Your task to perform on an android device: choose inbox layout in the gmail app Image 0: 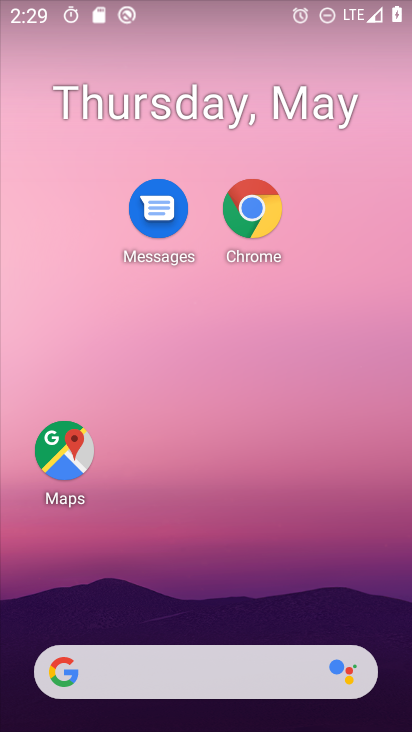
Step 0: drag from (187, 589) to (186, 57)
Your task to perform on an android device: choose inbox layout in the gmail app Image 1: 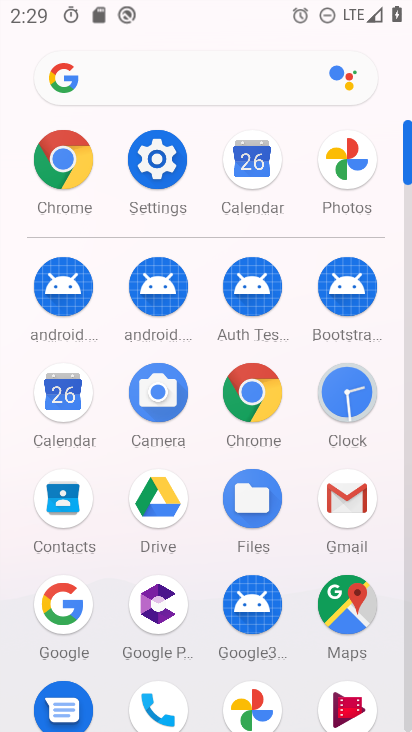
Step 1: click (350, 523)
Your task to perform on an android device: choose inbox layout in the gmail app Image 2: 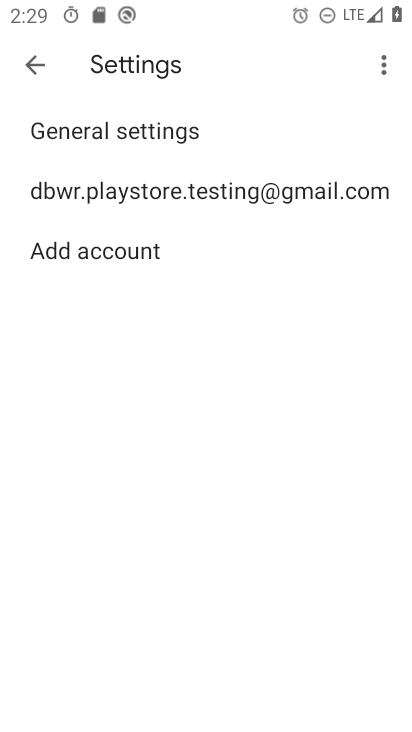
Step 2: click (32, 62)
Your task to perform on an android device: choose inbox layout in the gmail app Image 3: 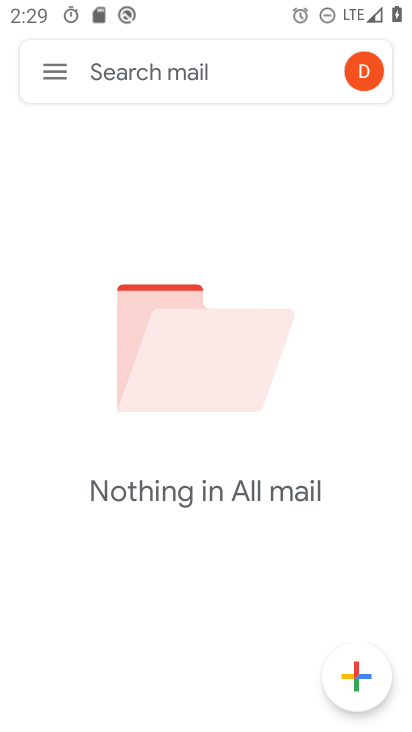
Step 3: click (63, 79)
Your task to perform on an android device: choose inbox layout in the gmail app Image 4: 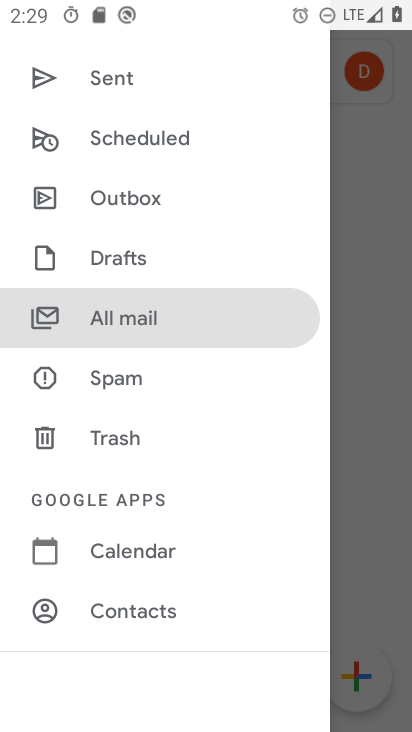
Step 4: drag from (115, 572) to (136, 169)
Your task to perform on an android device: choose inbox layout in the gmail app Image 5: 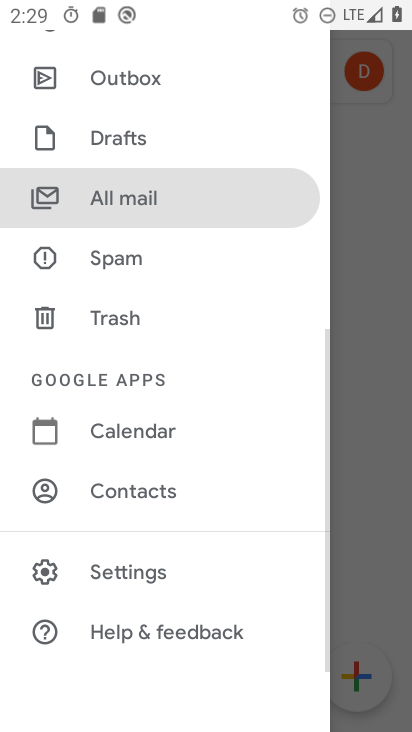
Step 5: click (92, 567)
Your task to perform on an android device: choose inbox layout in the gmail app Image 6: 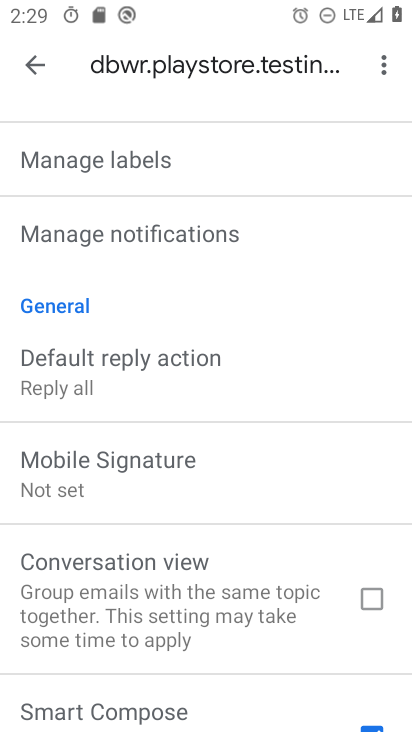
Step 6: drag from (141, 492) to (119, 616)
Your task to perform on an android device: choose inbox layout in the gmail app Image 7: 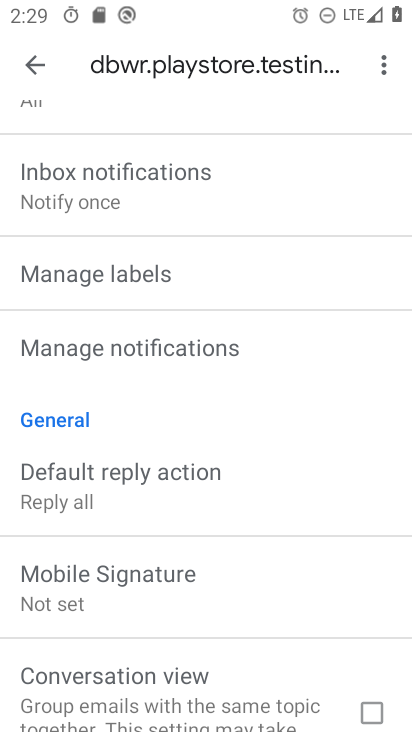
Step 7: drag from (131, 279) to (89, 588)
Your task to perform on an android device: choose inbox layout in the gmail app Image 8: 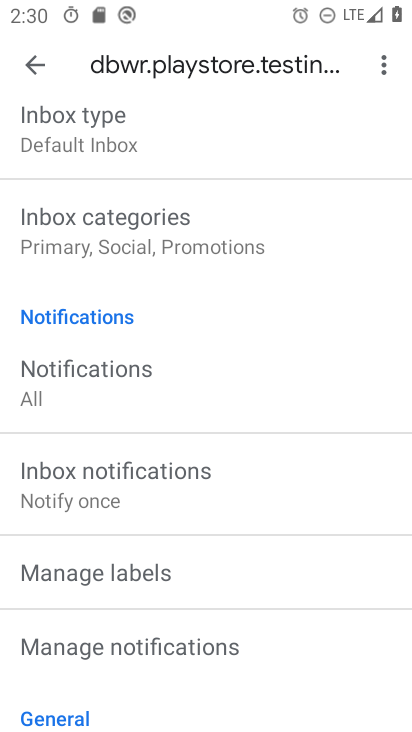
Step 8: drag from (163, 226) to (162, 497)
Your task to perform on an android device: choose inbox layout in the gmail app Image 9: 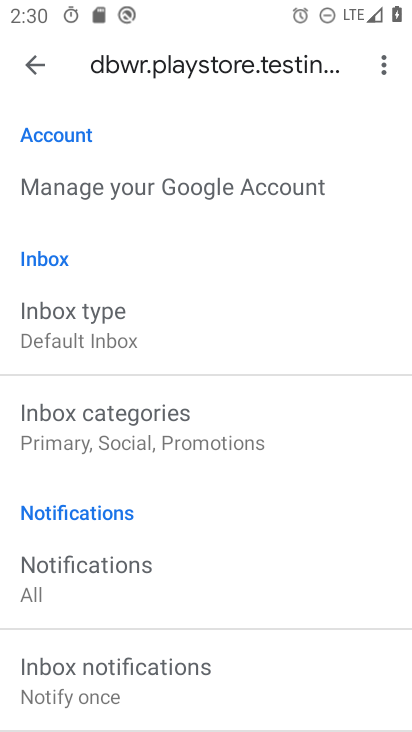
Step 9: drag from (135, 203) to (140, 666)
Your task to perform on an android device: choose inbox layout in the gmail app Image 10: 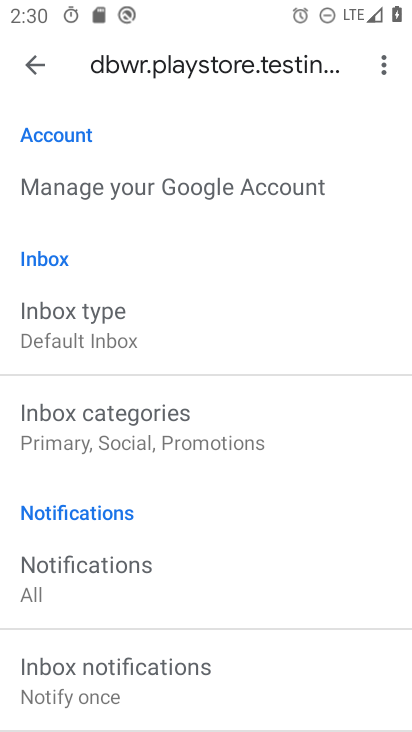
Step 10: click (67, 305)
Your task to perform on an android device: choose inbox layout in the gmail app Image 11: 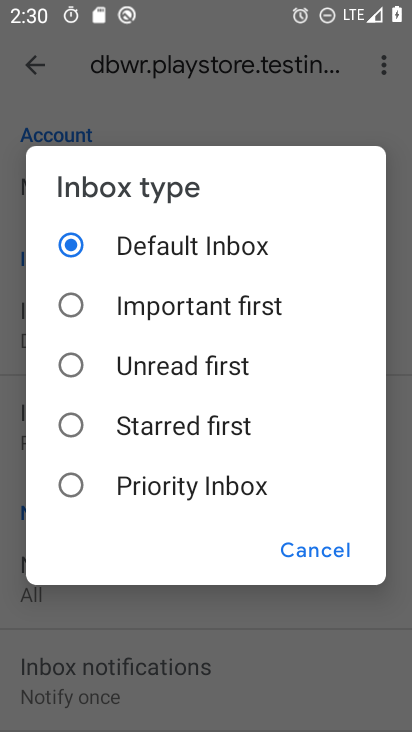
Step 11: click (70, 300)
Your task to perform on an android device: choose inbox layout in the gmail app Image 12: 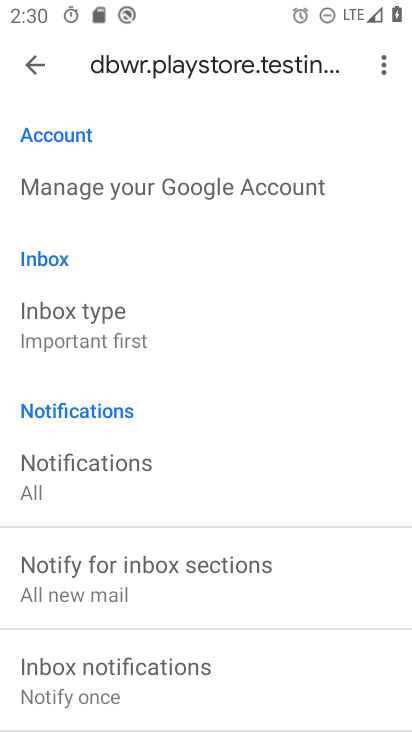
Step 12: task complete